Your task to perform on an android device: delete location history Image 0: 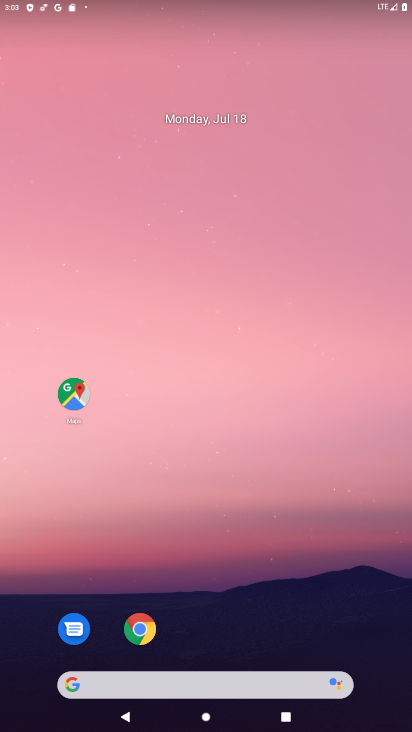
Step 0: click (72, 394)
Your task to perform on an android device: delete location history Image 1: 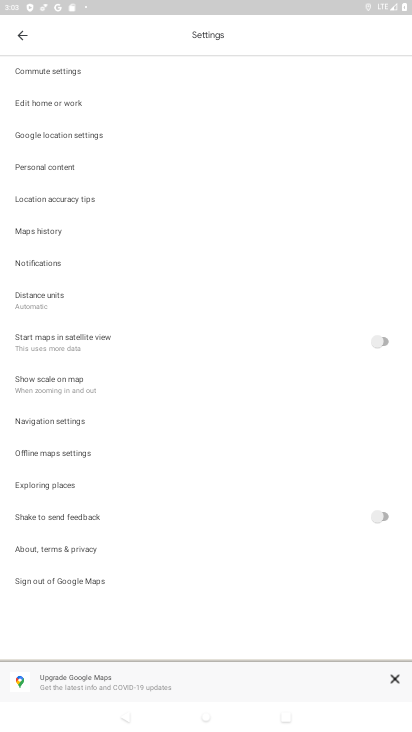
Step 1: click (18, 37)
Your task to perform on an android device: delete location history Image 2: 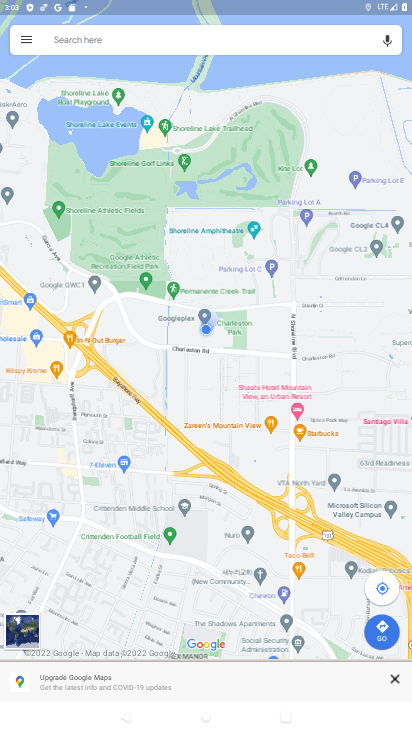
Step 2: drag from (26, 36) to (29, 92)
Your task to perform on an android device: delete location history Image 3: 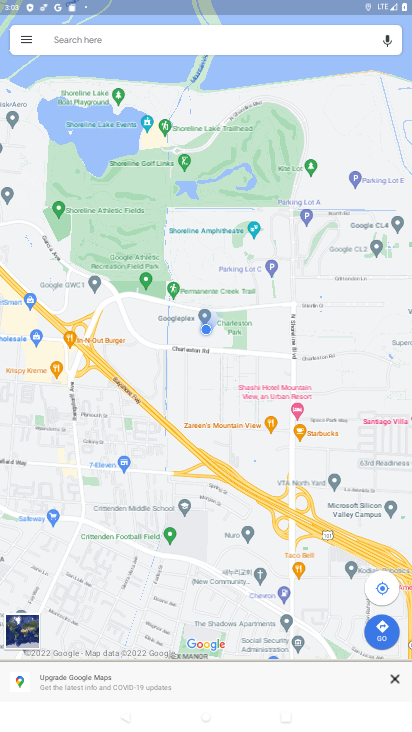
Step 3: click (24, 41)
Your task to perform on an android device: delete location history Image 4: 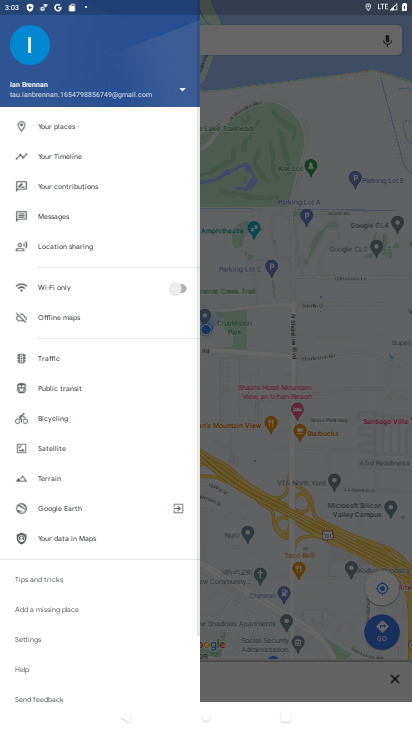
Step 4: click (51, 158)
Your task to perform on an android device: delete location history Image 5: 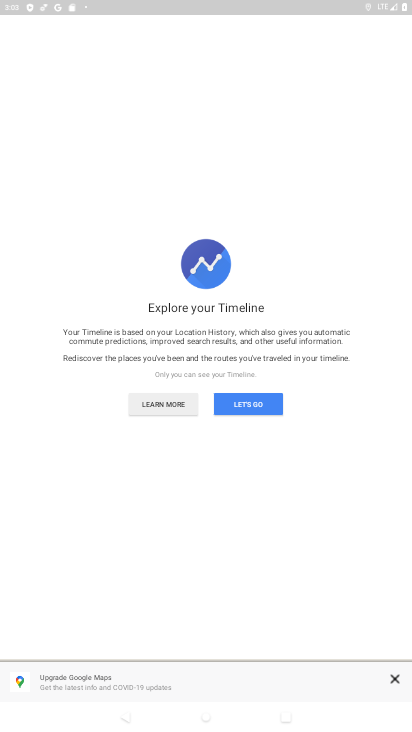
Step 5: click (232, 403)
Your task to perform on an android device: delete location history Image 6: 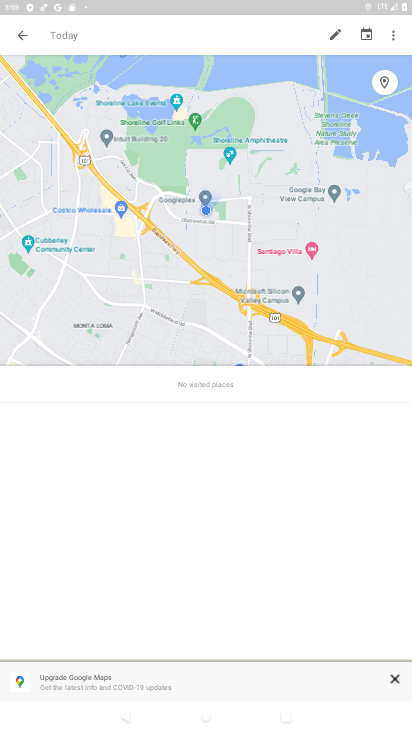
Step 6: drag from (394, 40) to (301, 222)
Your task to perform on an android device: delete location history Image 7: 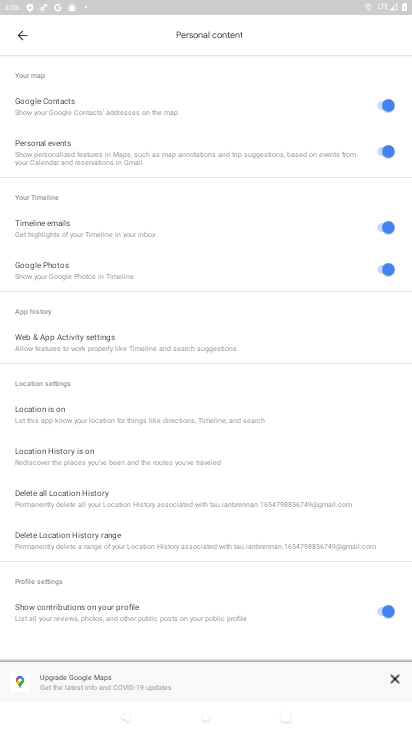
Step 7: click (84, 499)
Your task to perform on an android device: delete location history Image 8: 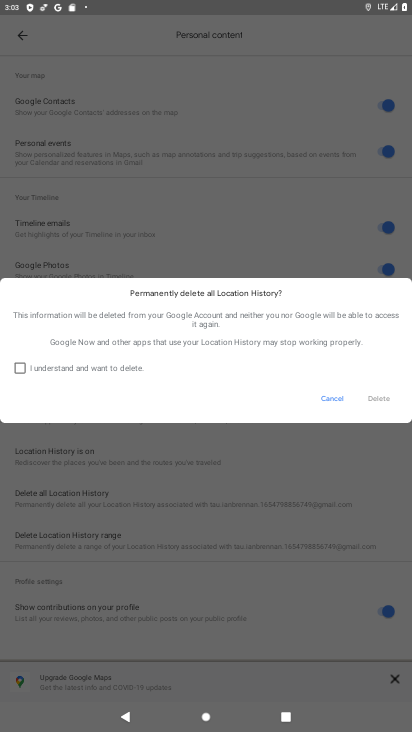
Step 8: click (16, 368)
Your task to perform on an android device: delete location history Image 9: 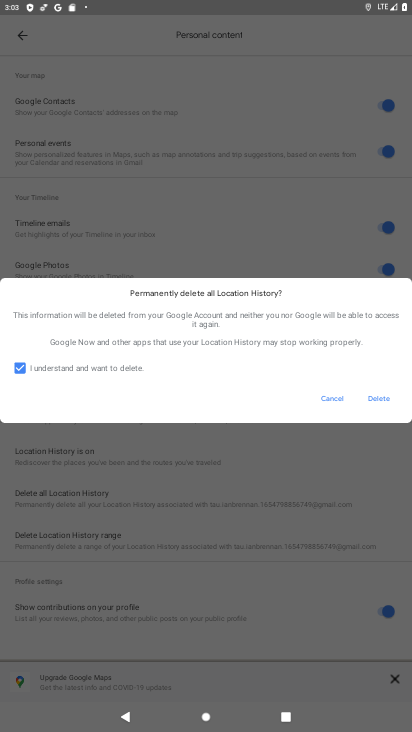
Step 9: click (379, 399)
Your task to perform on an android device: delete location history Image 10: 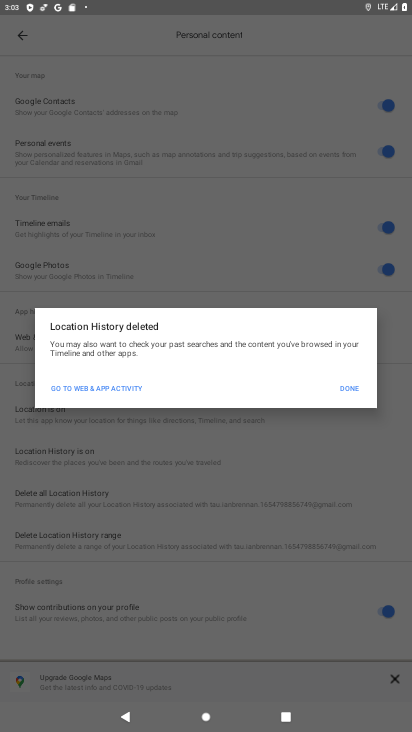
Step 10: click (352, 387)
Your task to perform on an android device: delete location history Image 11: 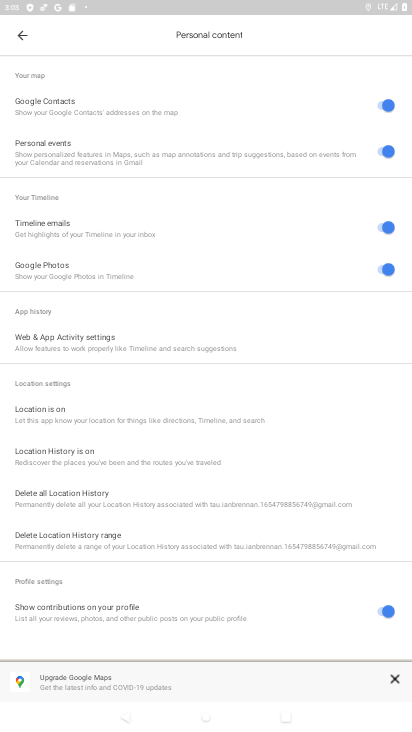
Step 11: task complete